Your task to perform on an android device: turn off javascript in the chrome app Image 0: 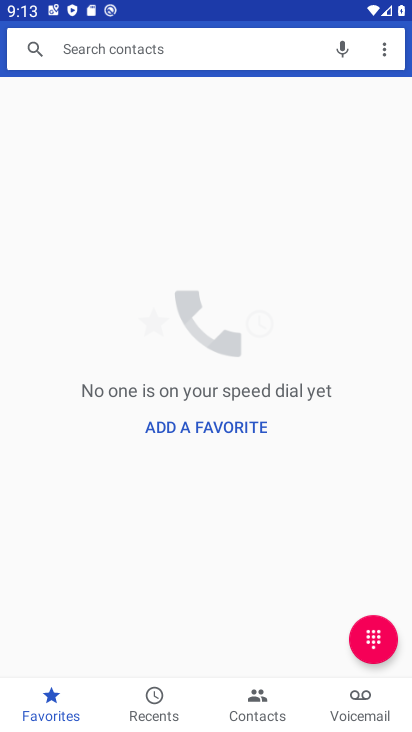
Step 0: press home button
Your task to perform on an android device: turn off javascript in the chrome app Image 1: 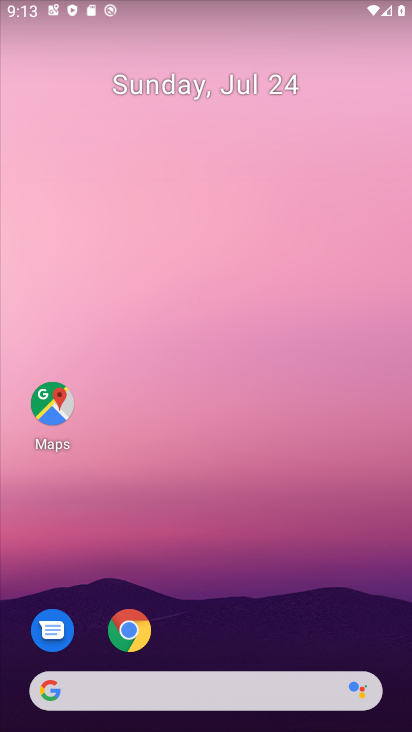
Step 1: click (155, 623)
Your task to perform on an android device: turn off javascript in the chrome app Image 2: 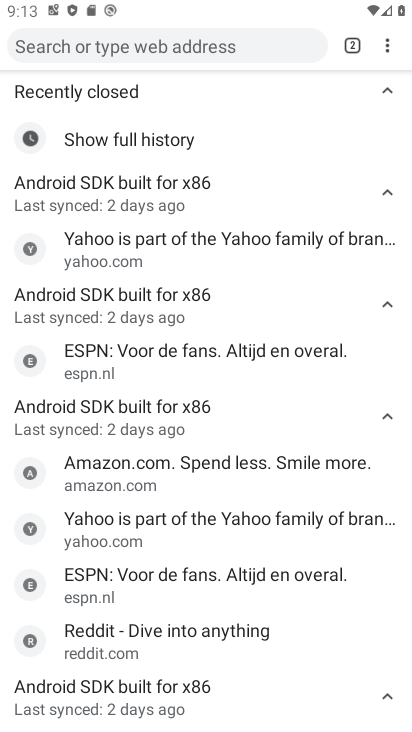
Step 2: click (394, 51)
Your task to perform on an android device: turn off javascript in the chrome app Image 3: 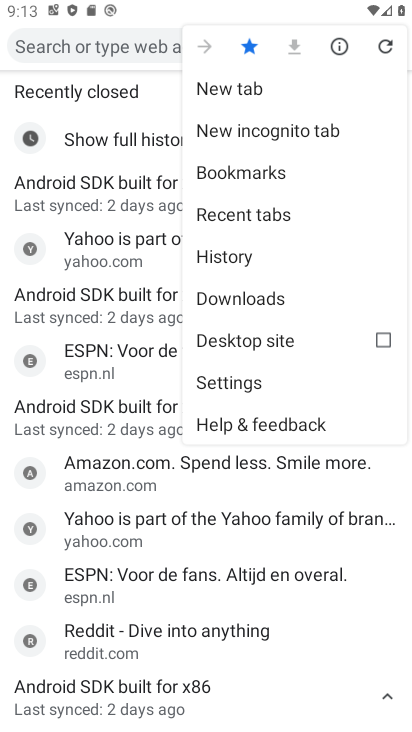
Step 3: click (242, 378)
Your task to perform on an android device: turn off javascript in the chrome app Image 4: 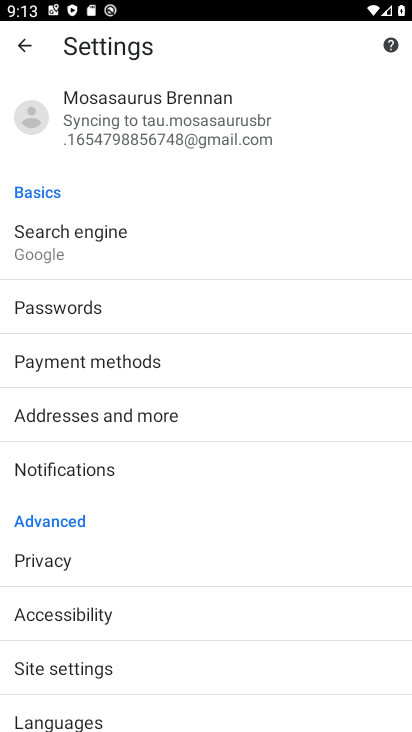
Step 4: drag from (143, 676) to (144, 217)
Your task to perform on an android device: turn off javascript in the chrome app Image 5: 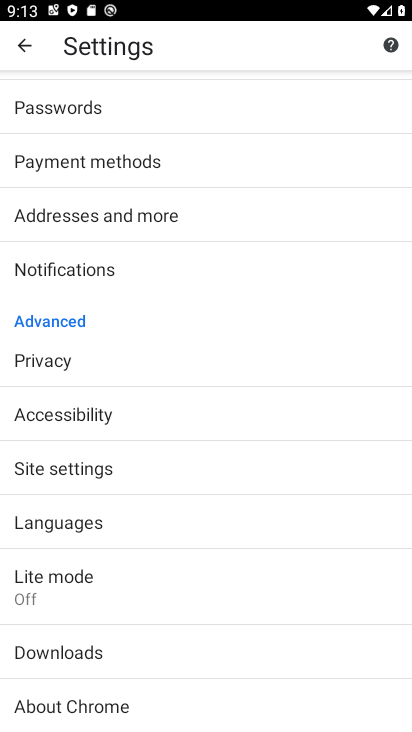
Step 5: click (93, 474)
Your task to perform on an android device: turn off javascript in the chrome app Image 6: 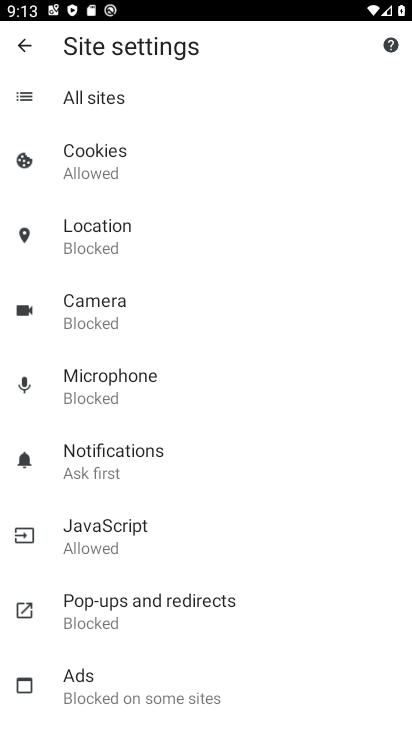
Step 6: click (108, 537)
Your task to perform on an android device: turn off javascript in the chrome app Image 7: 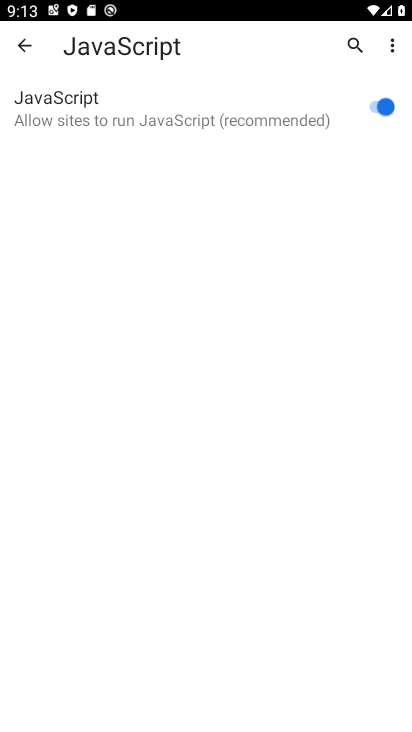
Step 7: click (379, 106)
Your task to perform on an android device: turn off javascript in the chrome app Image 8: 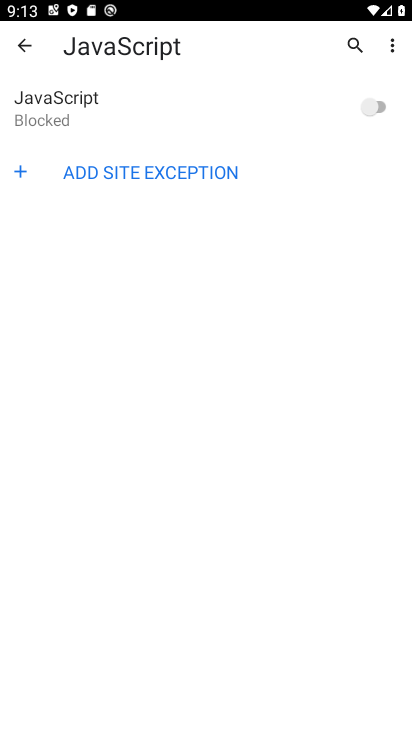
Step 8: task complete